Your task to perform on an android device: Open Google Image 0: 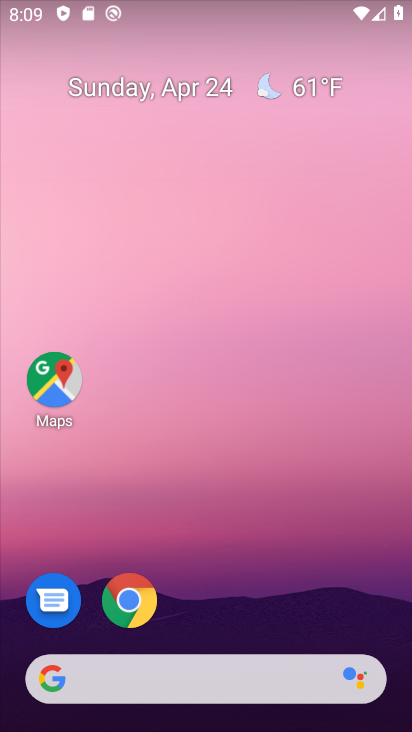
Step 0: drag from (223, 729) to (206, 164)
Your task to perform on an android device: Open Google Image 1: 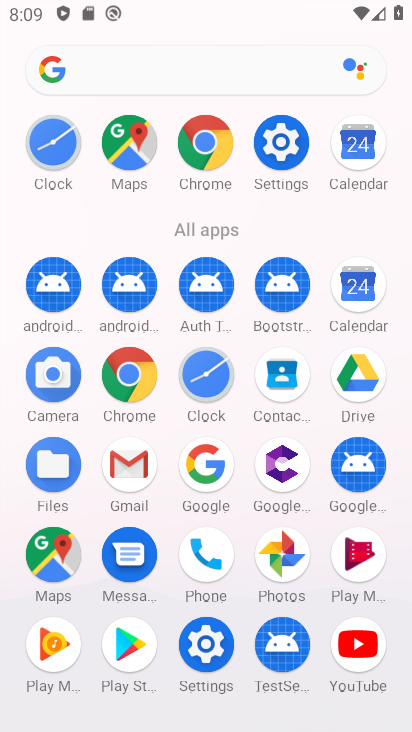
Step 1: click (200, 464)
Your task to perform on an android device: Open Google Image 2: 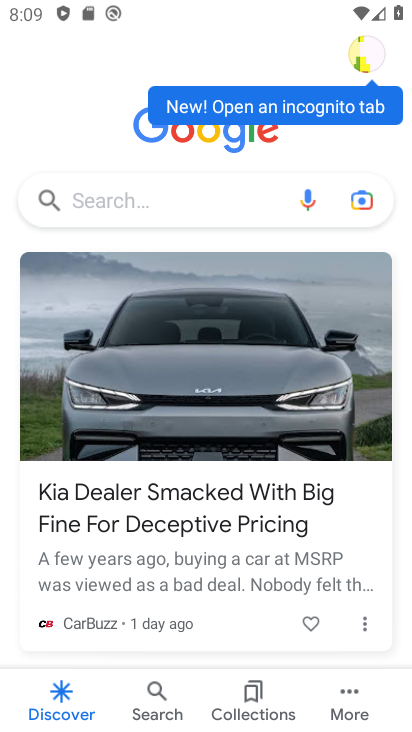
Step 2: task complete